Your task to perform on an android device: Go to Maps Image 0: 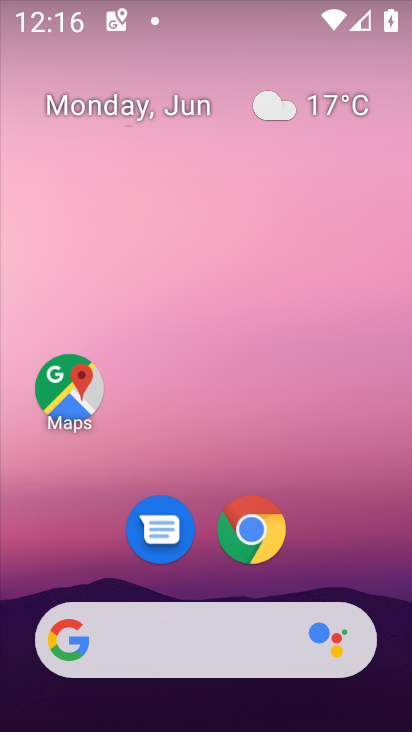
Step 0: drag from (364, 509) to (386, 12)
Your task to perform on an android device: Go to Maps Image 1: 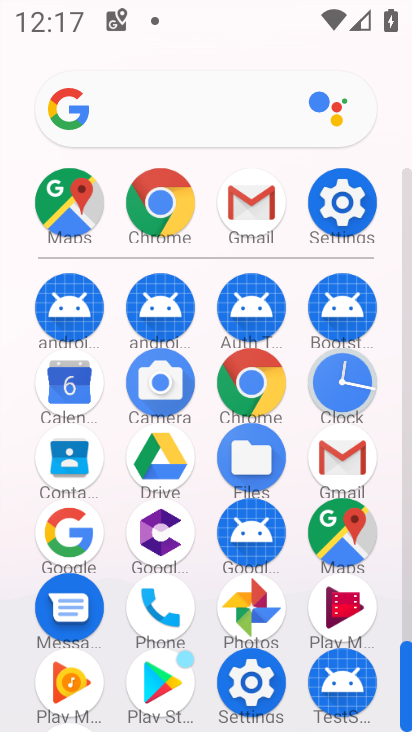
Step 1: click (354, 527)
Your task to perform on an android device: Go to Maps Image 2: 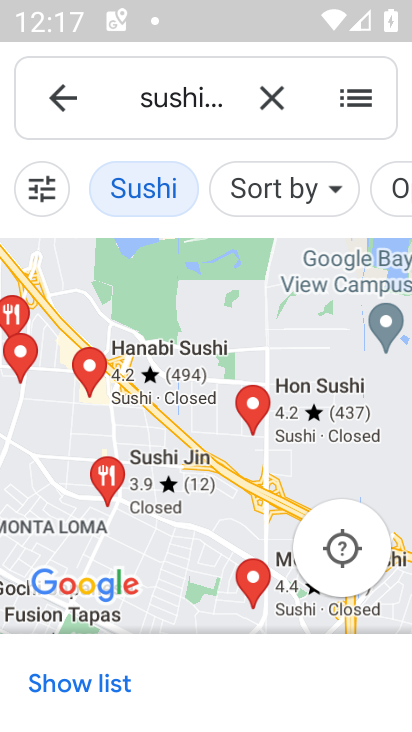
Step 2: task complete